Your task to perform on an android device: toggle show notifications on the lock screen Image 0: 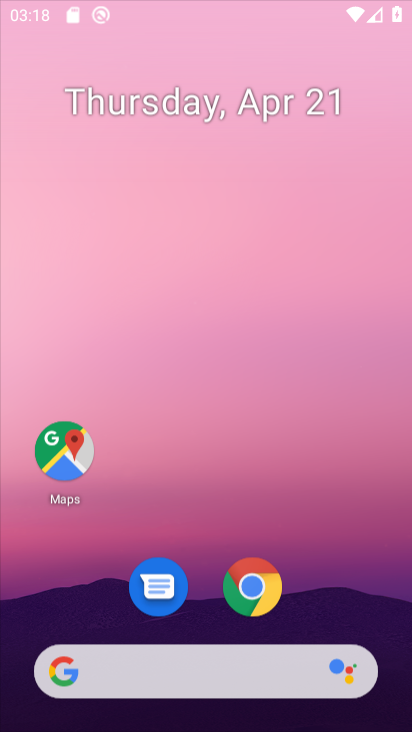
Step 0: drag from (347, 599) to (410, 304)
Your task to perform on an android device: toggle show notifications on the lock screen Image 1: 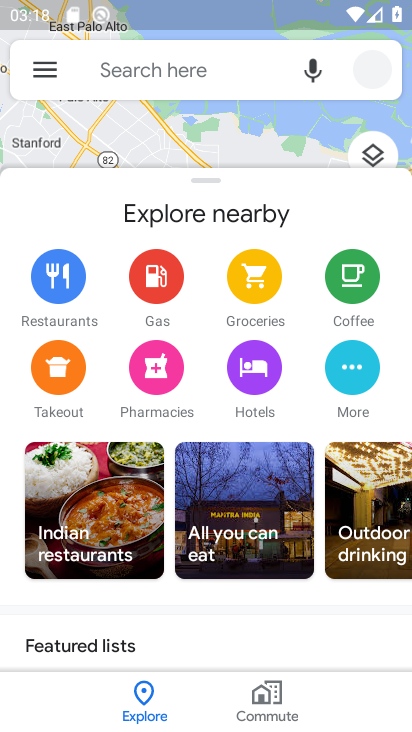
Step 1: press home button
Your task to perform on an android device: toggle show notifications on the lock screen Image 2: 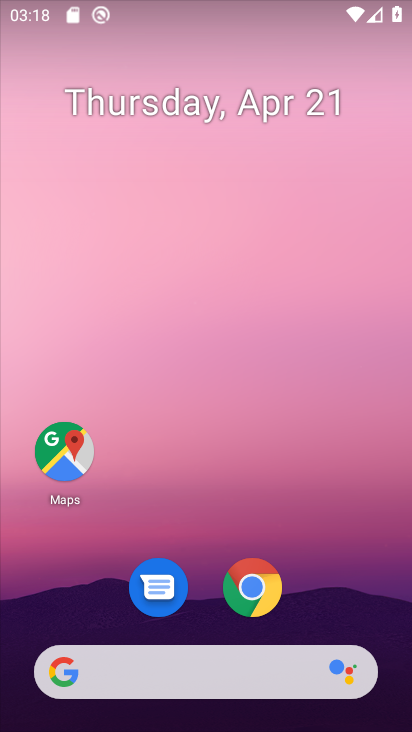
Step 2: drag from (330, 601) to (361, 152)
Your task to perform on an android device: toggle show notifications on the lock screen Image 3: 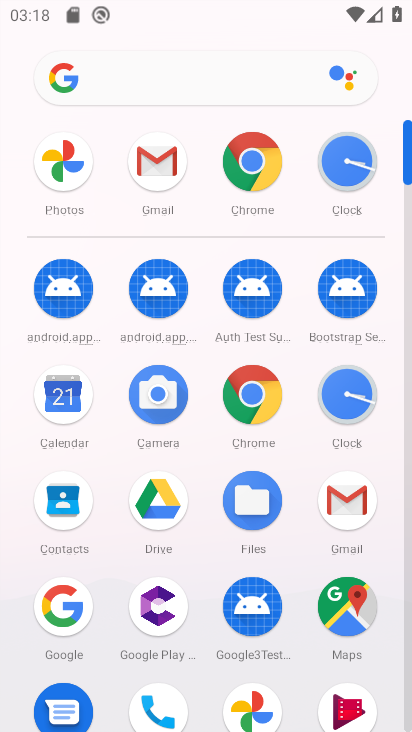
Step 3: drag from (203, 559) to (203, 283)
Your task to perform on an android device: toggle show notifications on the lock screen Image 4: 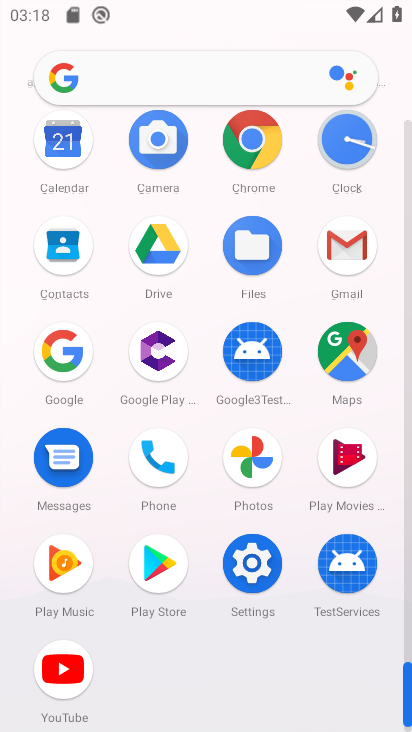
Step 4: click (238, 569)
Your task to perform on an android device: toggle show notifications on the lock screen Image 5: 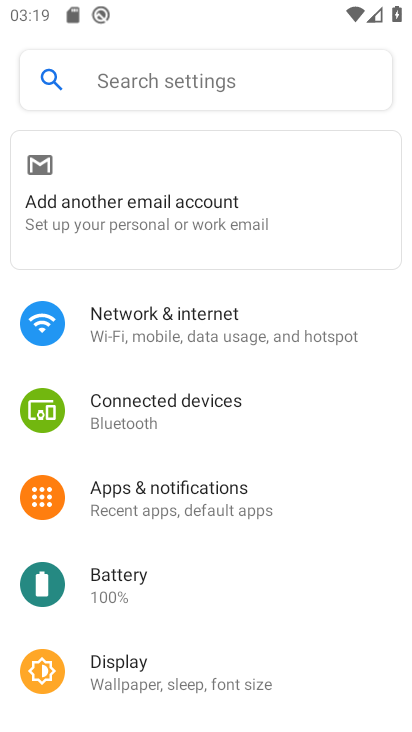
Step 5: drag from (356, 632) to (366, 523)
Your task to perform on an android device: toggle show notifications on the lock screen Image 6: 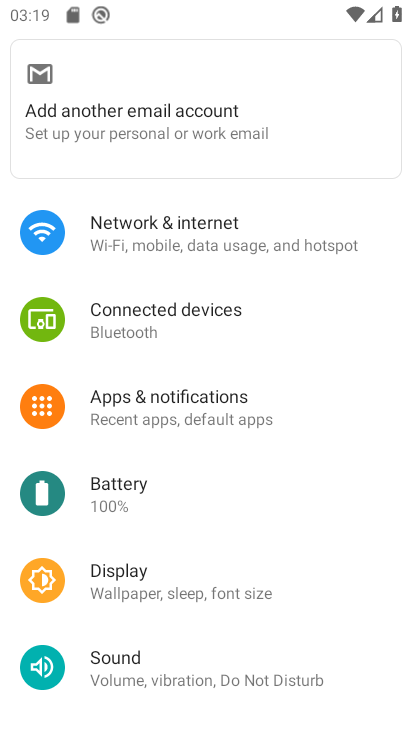
Step 6: drag from (366, 661) to (367, 510)
Your task to perform on an android device: toggle show notifications on the lock screen Image 7: 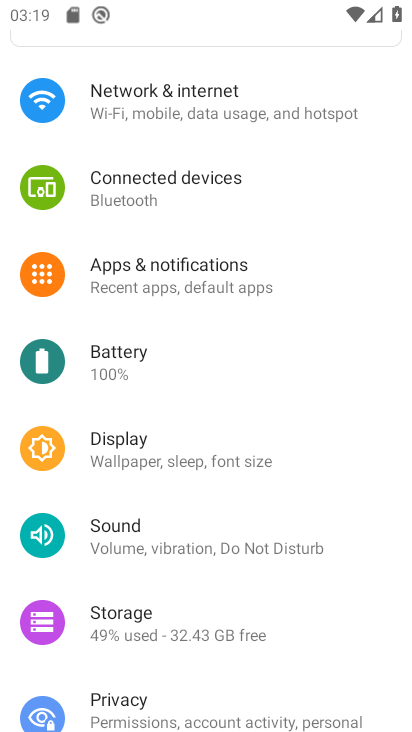
Step 7: drag from (359, 649) to (370, 510)
Your task to perform on an android device: toggle show notifications on the lock screen Image 8: 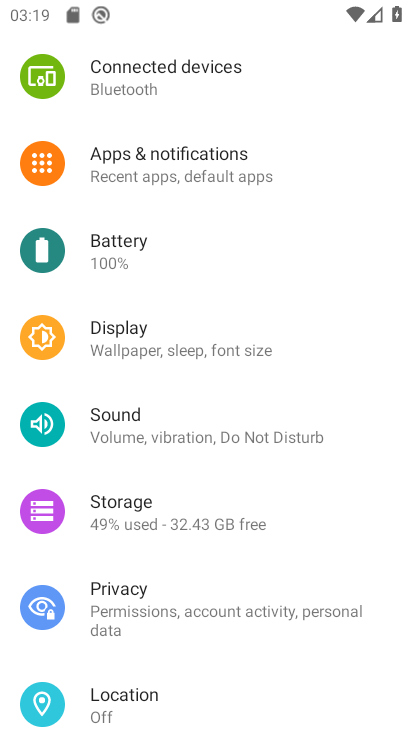
Step 8: drag from (352, 657) to (354, 512)
Your task to perform on an android device: toggle show notifications on the lock screen Image 9: 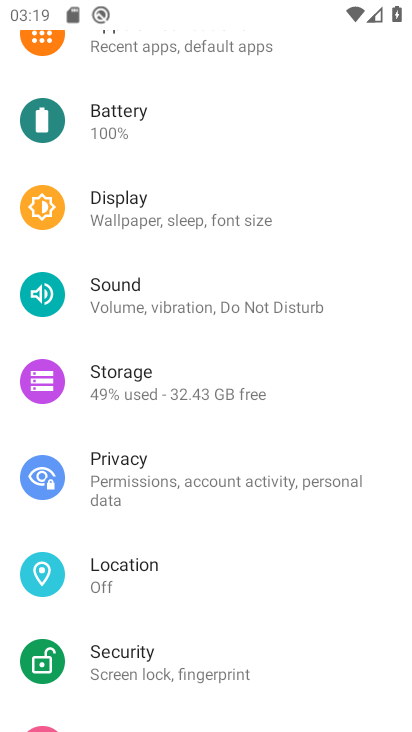
Step 9: drag from (349, 647) to (366, 514)
Your task to perform on an android device: toggle show notifications on the lock screen Image 10: 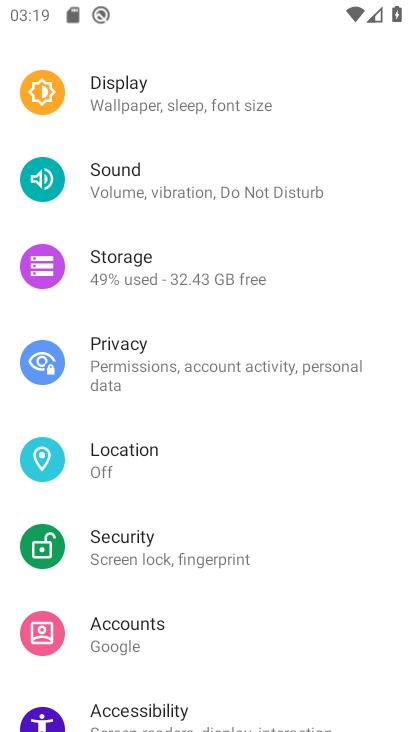
Step 10: drag from (356, 623) to (365, 483)
Your task to perform on an android device: toggle show notifications on the lock screen Image 11: 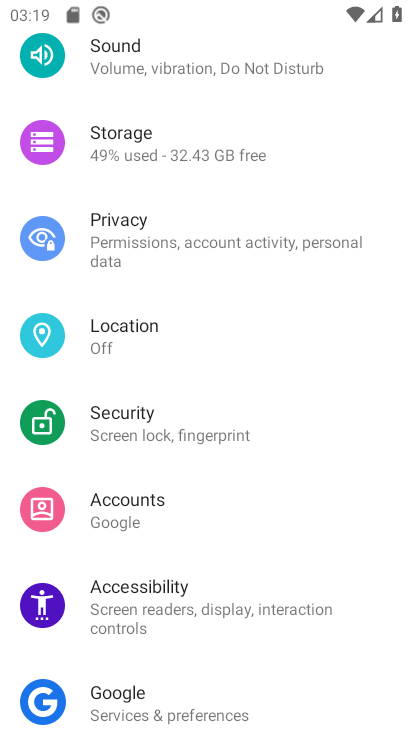
Step 11: drag from (355, 655) to (365, 494)
Your task to perform on an android device: toggle show notifications on the lock screen Image 12: 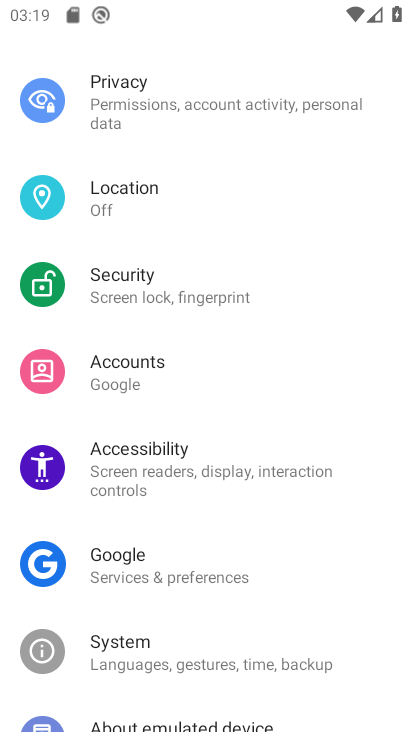
Step 12: drag from (373, 626) to (370, 464)
Your task to perform on an android device: toggle show notifications on the lock screen Image 13: 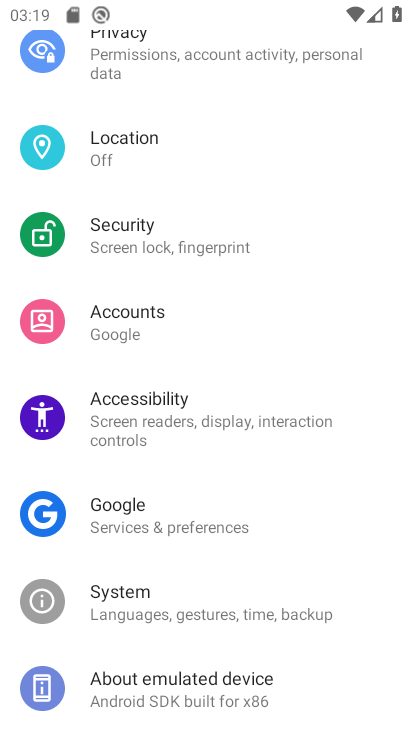
Step 13: drag from (365, 385) to (369, 514)
Your task to perform on an android device: toggle show notifications on the lock screen Image 14: 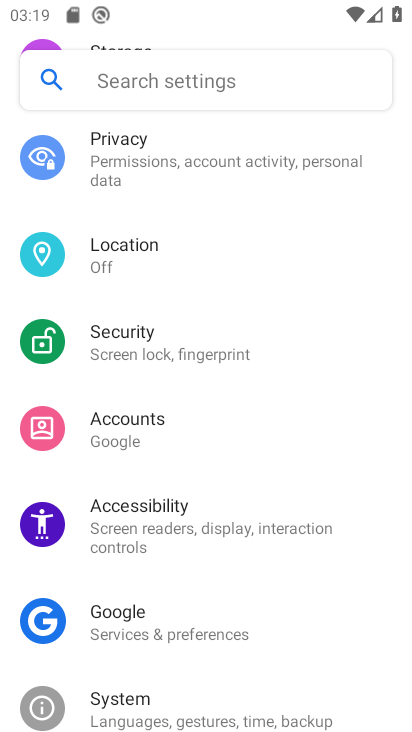
Step 14: drag from (362, 413) to (359, 554)
Your task to perform on an android device: toggle show notifications on the lock screen Image 15: 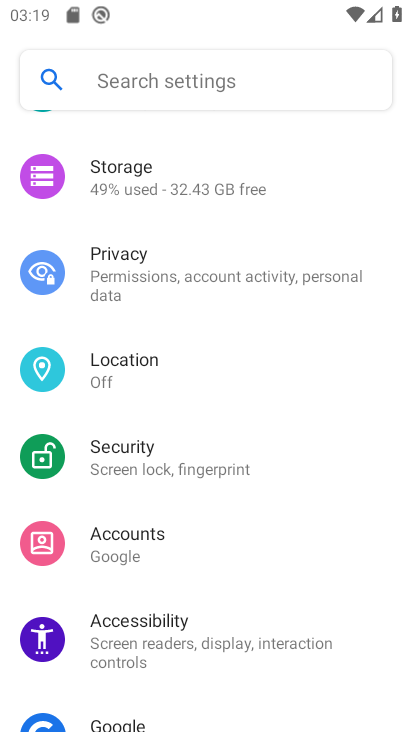
Step 15: drag from (354, 366) to (357, 518)
Your task to perform on an android device: toggle show notifications on the lock screen Image 16: 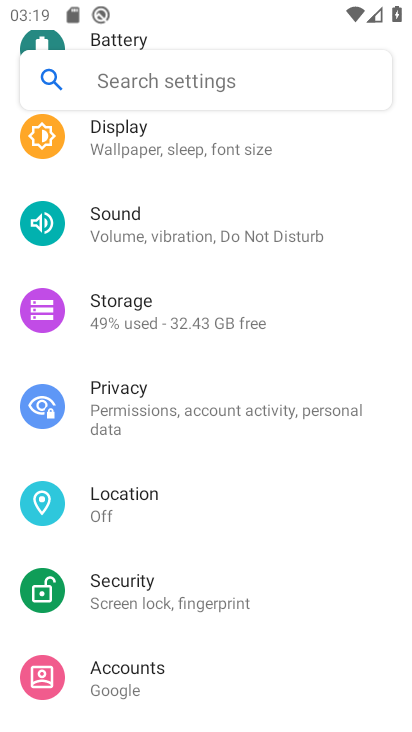
Step 16: drag from (374, 321) to (377, 474)
Your task to perform on an android device: toggle show notifications on the lock screen Image 17: 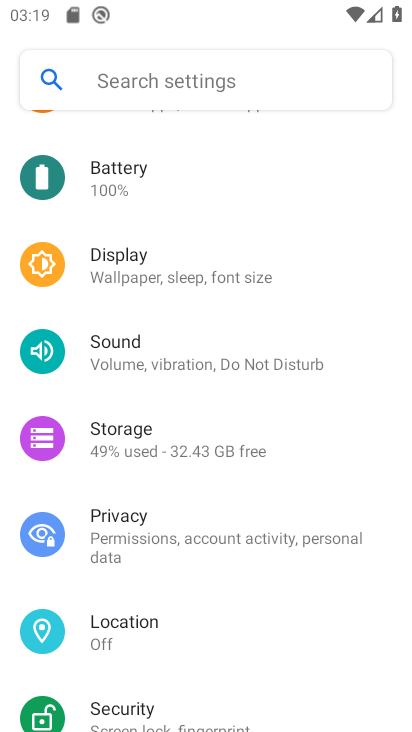
Step 17: drag from (368, 303) to (371, 425)
Your task to perform on an android device: toggle show notifications on the lock screen Image 18: 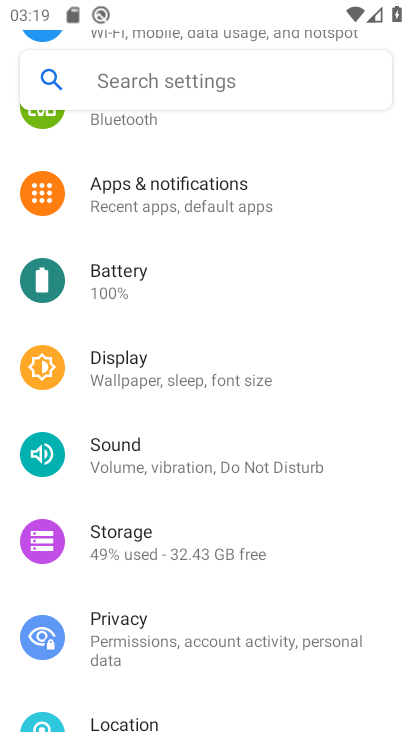
Step 18: drag from (351, 286) to (366, 549)
Your task to perform on an android device: toggle show notifications on the lock screen Image 19: 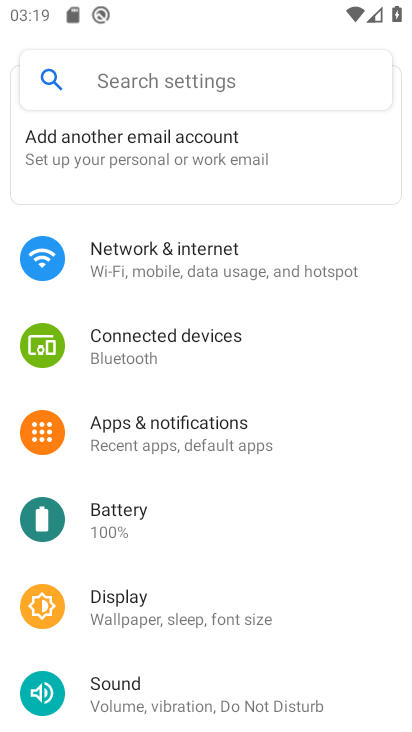
Step 19: click (237, 447)
Your task to perform on an android device: toggle show notifications on the lock screen Image 20: 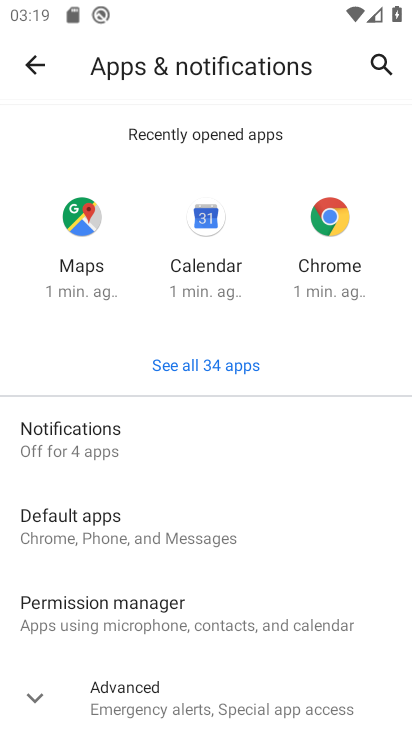
Step 20: click (108, 450)
Your task to perform on an android device: toggle show notifications on the lock screen Image 21: 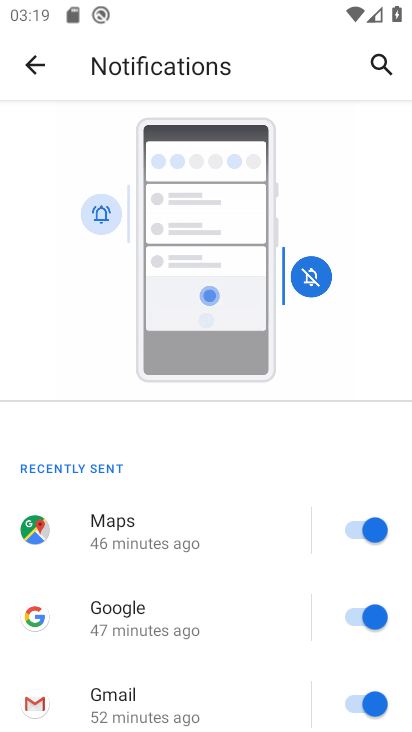
Step 21: drag from (262, 594) to (265, 402)
Your task to perform on an android device: toggle show notifications on the lock screen Image 22: 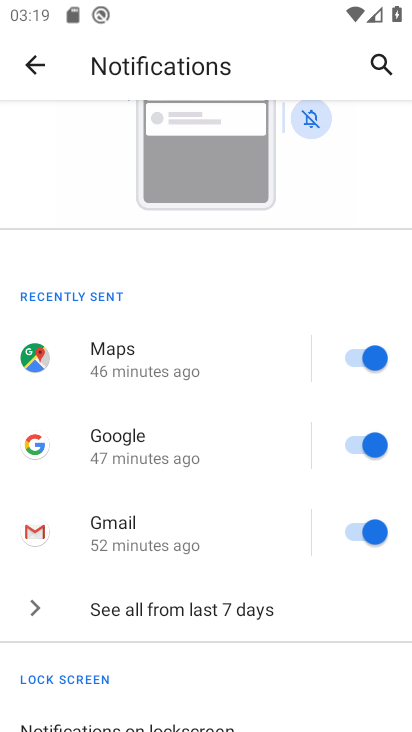
Step 22: drag from (252, 521) to (252, 346)
Your task to perform on an android device: toggle show notifications on the lock screen Image 23: 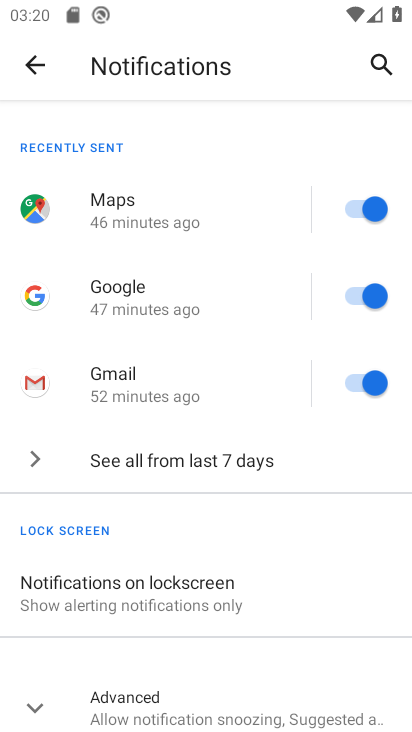
Step 23: drag from (274, 611) to (284, 453)
Your task to perform on an android device: toggle show notifications on the lock screen Image 24: 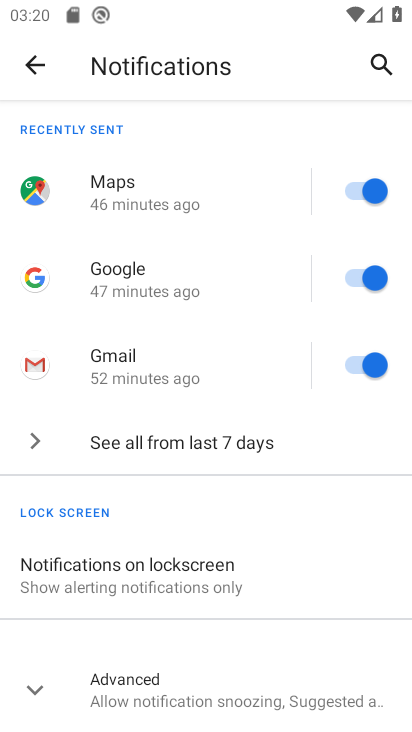
Step 24: click (195, 575)
Your task to perform on an android device: toggle show notifications on the lock screen Image 25: 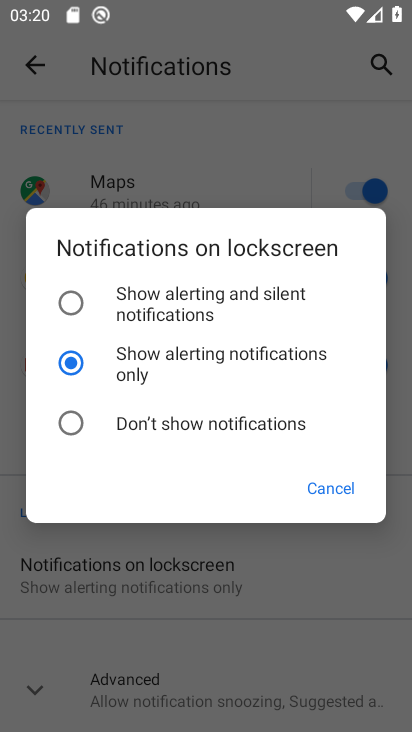
Step 25: click (78, 305)
Your task to perform on an android device: toggle show notifications on the lock screen Image 26: 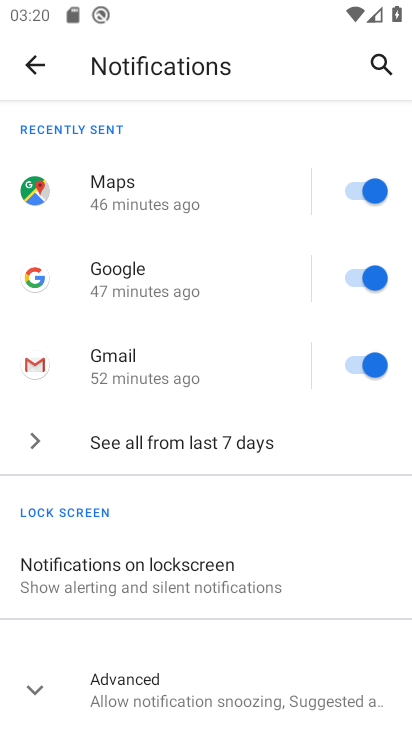
Step 26: task complete